Your task to perform on an android device: Go to Google Image 0: 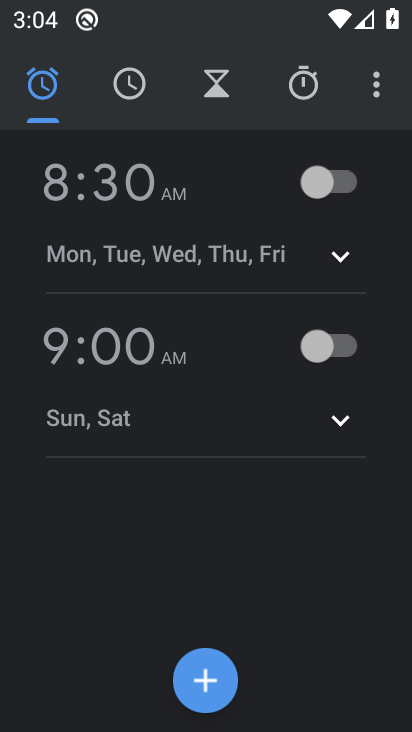
Step 0: press home button
Your task to perform on an android device: Go to Google Image 1: 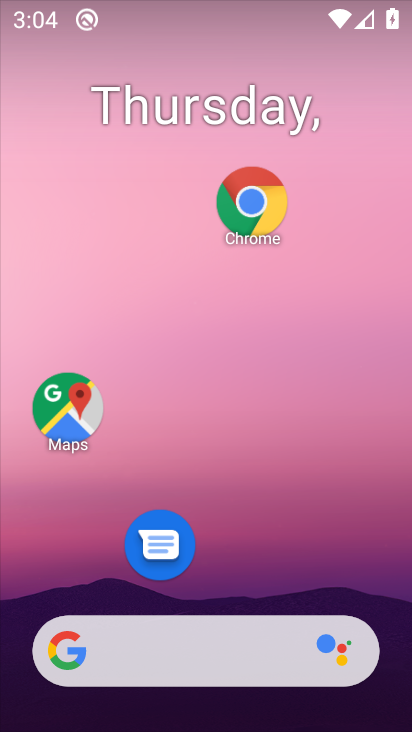
Step 1: drag from (212, 620) to (213, 282)
Your task to perform on an android device: Go to Google Image 2: 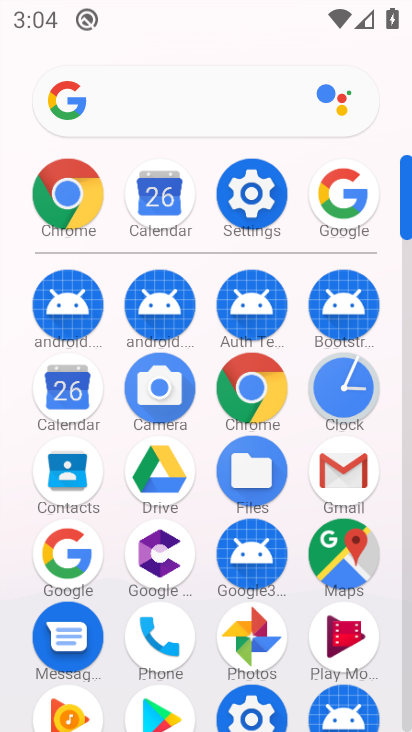
Step 2: click (57, 561)
Your task to perform on an android device: Go to Google Image 3: 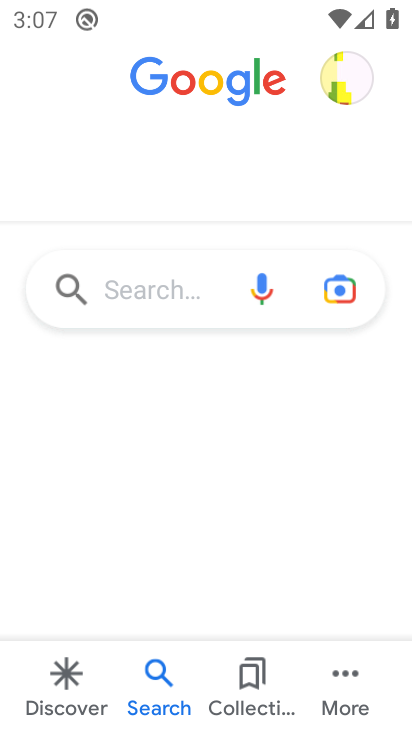
Step 3: task complete